Your task to perform on an android device: Search for "logitech g pro" on target.com, select the first entry, and add it to the cart. Image 0: 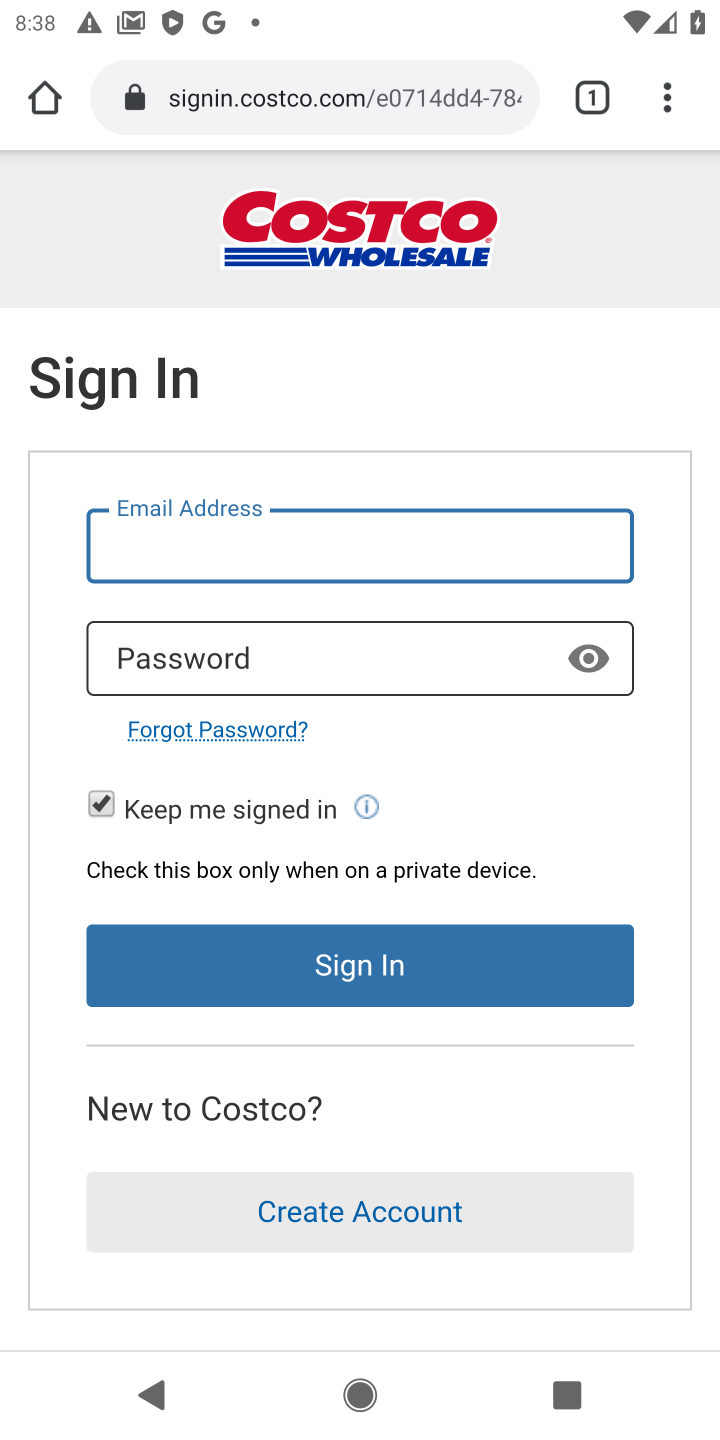
Step 0: press home button
Your task to perform on an android device: Search for "logitech g pro" on target.com, select the first entry, and add it to the cart. Image 1: 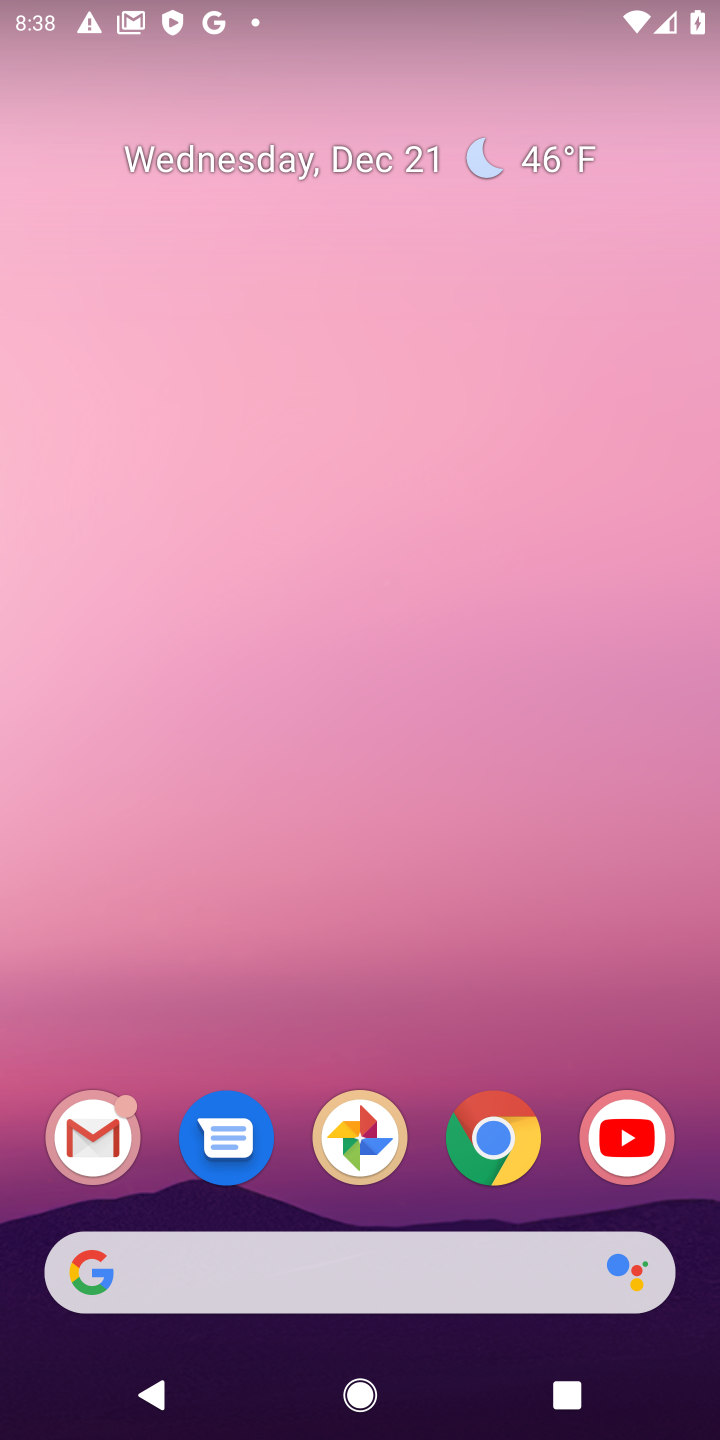
Step 1: click (495, 1147)
Your task to perform on an android device: Search for "logitech g pro" on target.com, select the first entry, and add it to the cart. Image 2: 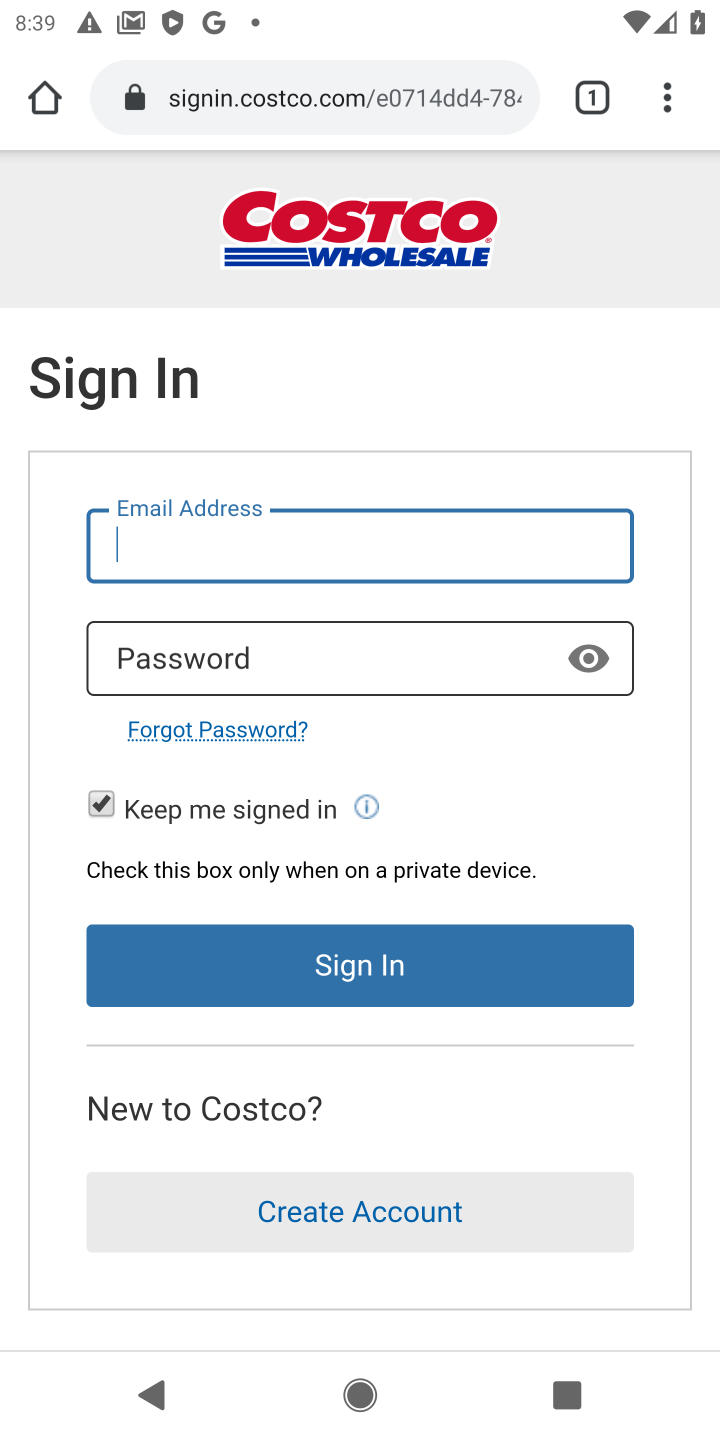
Step 2: click (238, 96)
Your task to perform on an android device: Search for "logitech g pro" on target.com, select the first entry, and add it to the cart. Image 3: 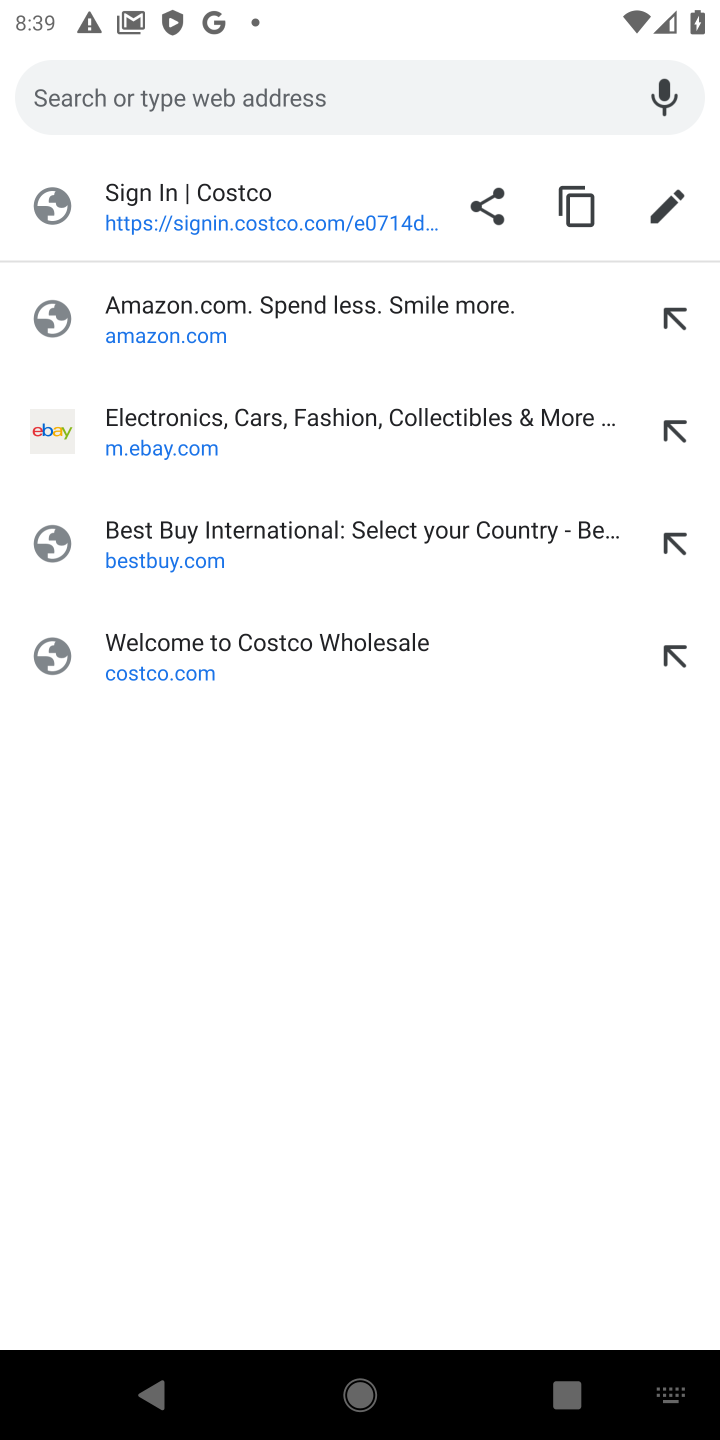
Step 3: type "target.com"
Your task to perform on an android device: Search for "logitech g pro" on target.com, select the first entry, and add it to the cart. Image 4: 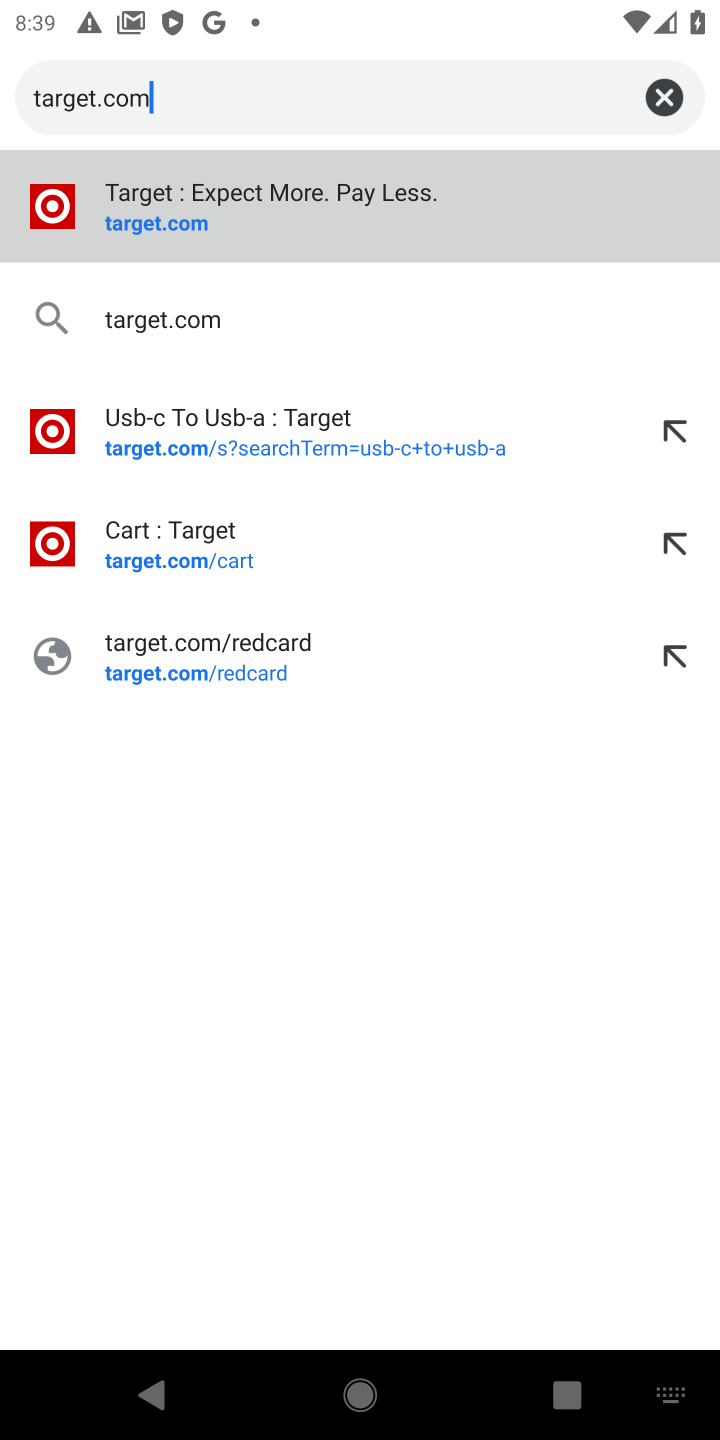
Step 4: click (168, 218)
Your task to perform on an android device: Search for "logitech g pro" on target.com, select the first entry, and add it to the cart. Image 5: 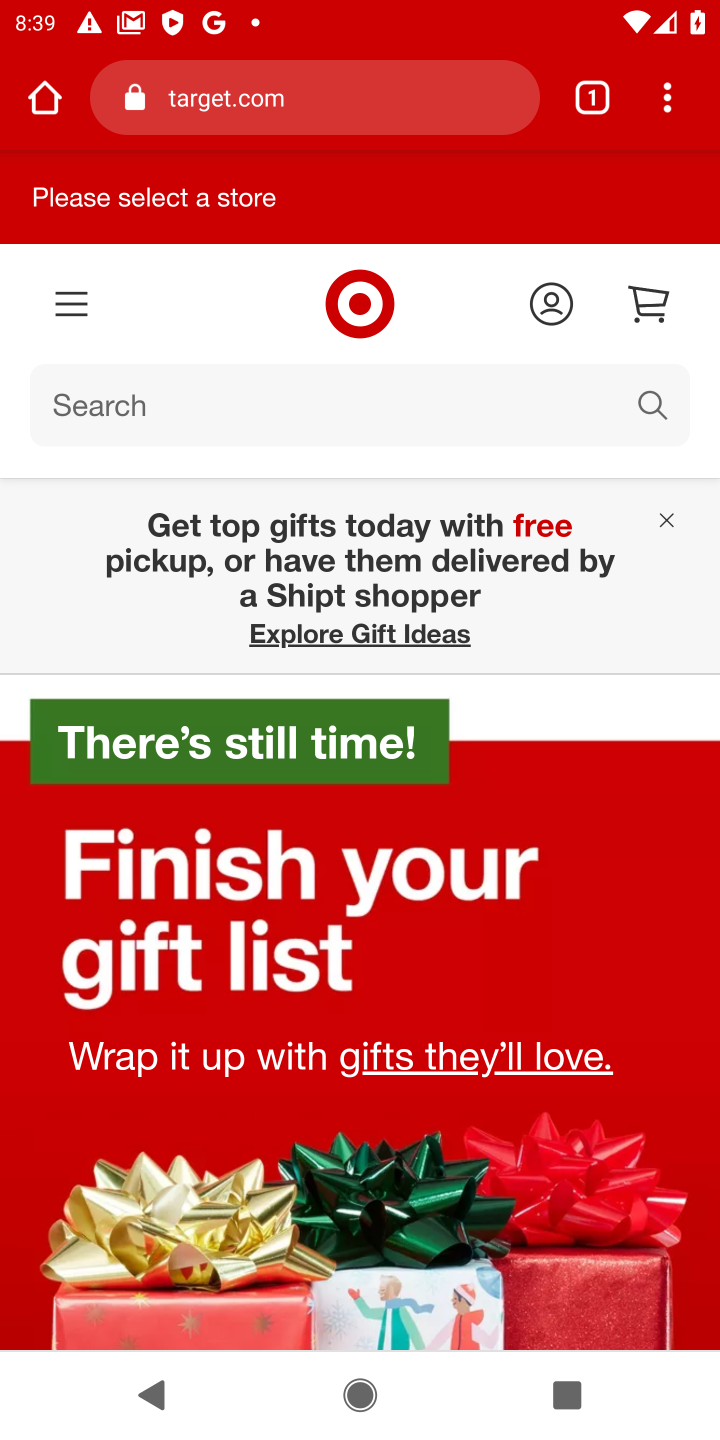
Step 5: click (111, 418)
Your task to perform on an android device: Search for "logitech g pro" on target.com, select the first entry, and add it to the cart. Image 6: 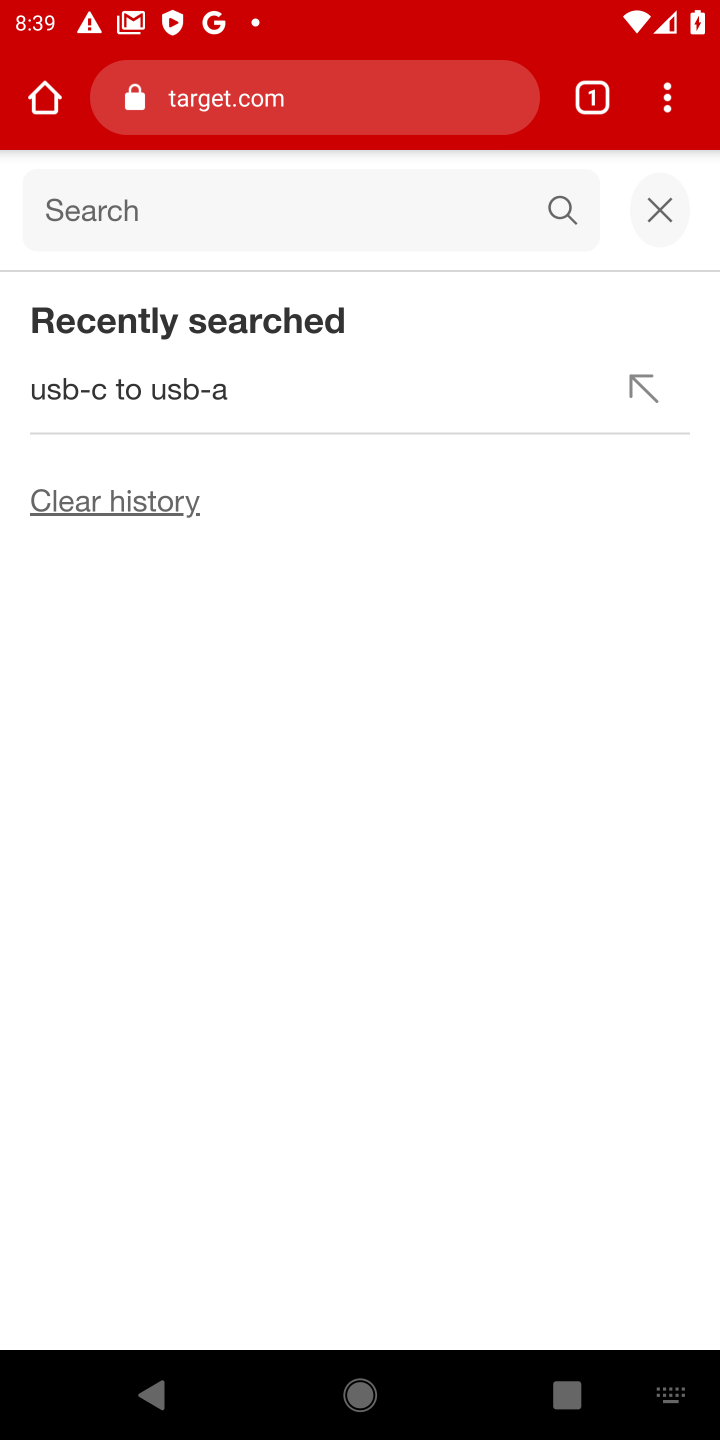
Step 6: type "logitech g pro"
Your task to perform on an android device: Search for "logitech g pro" on target.com, select the first entry, and add it to the cart. Image 7: 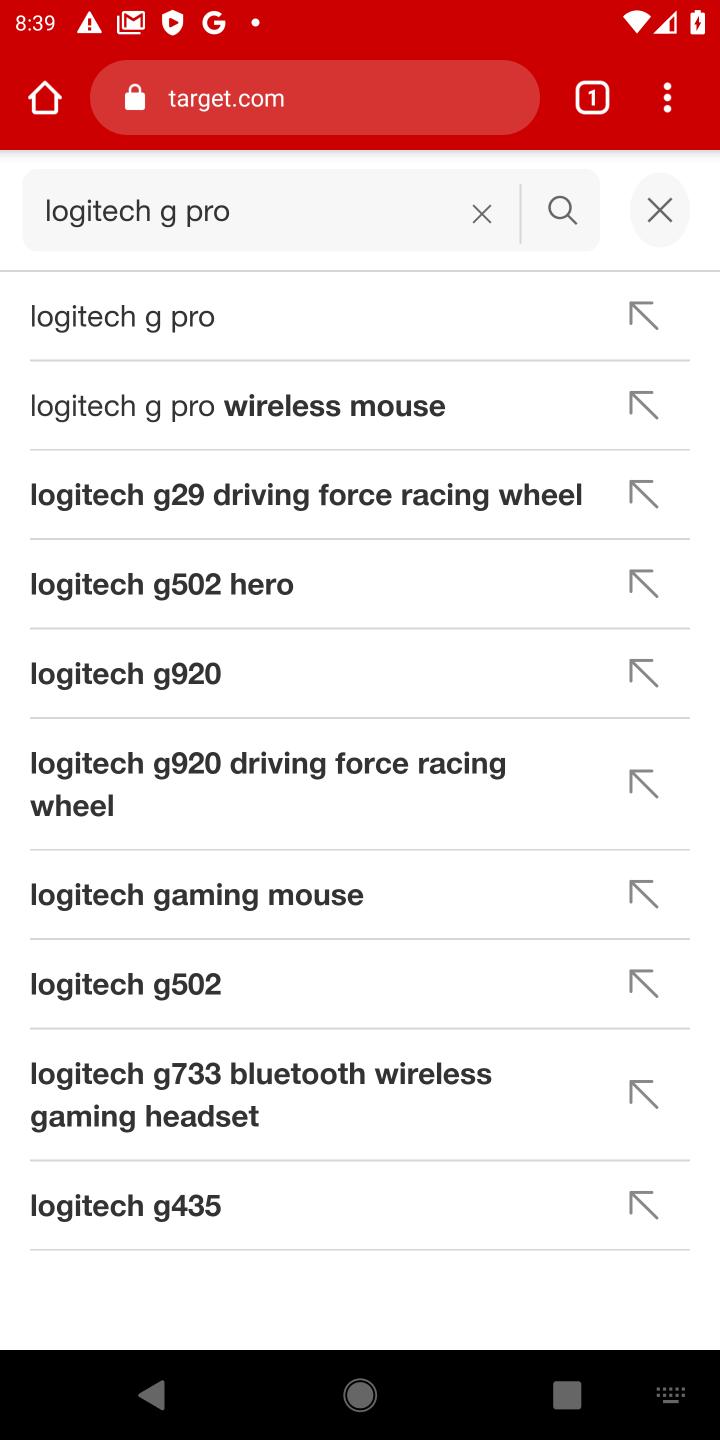
Step 7: click (151, 332)
Your task to perform on an android device: Search for "logitech g pro" on target.com, select the first entry, and add it to the cart. Image 8: 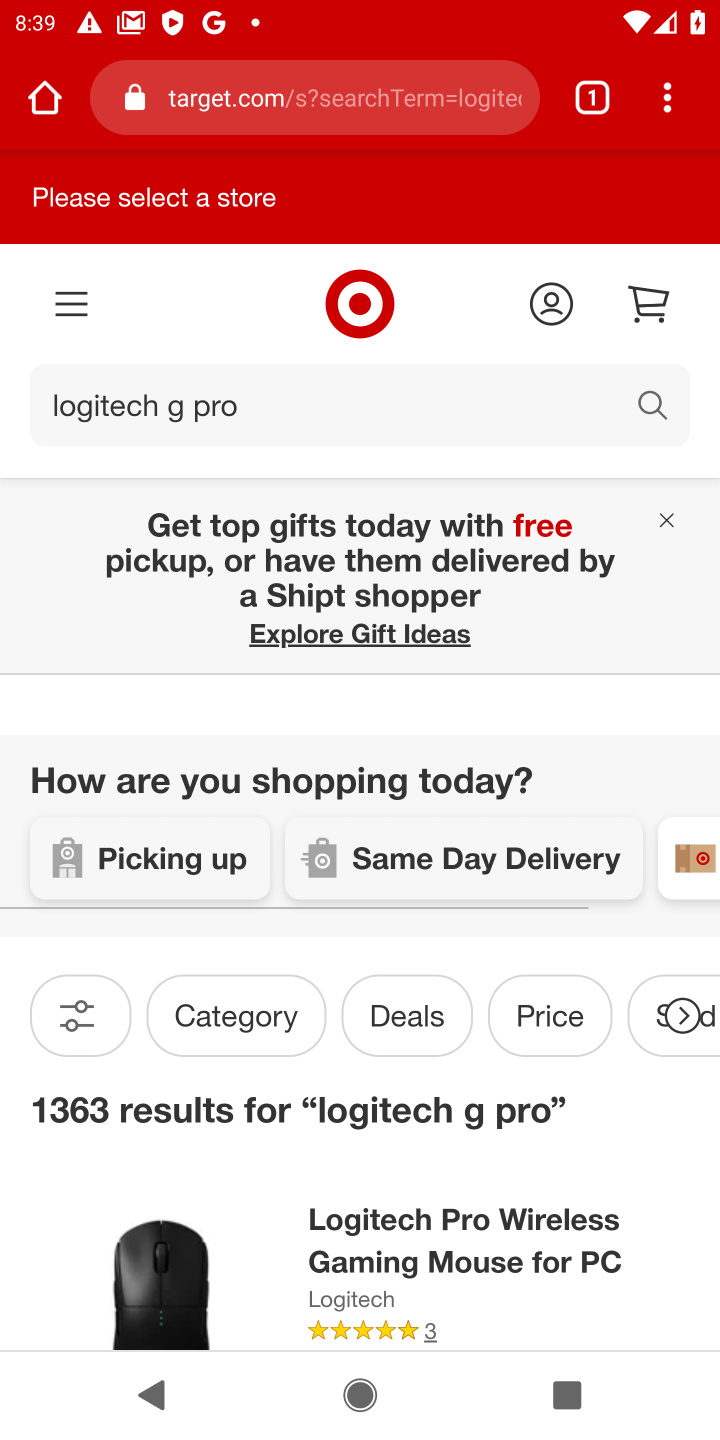
Step 8: task complete